Your task to perform on an android device: allow notifications from all sites in the chrome app Image 0: 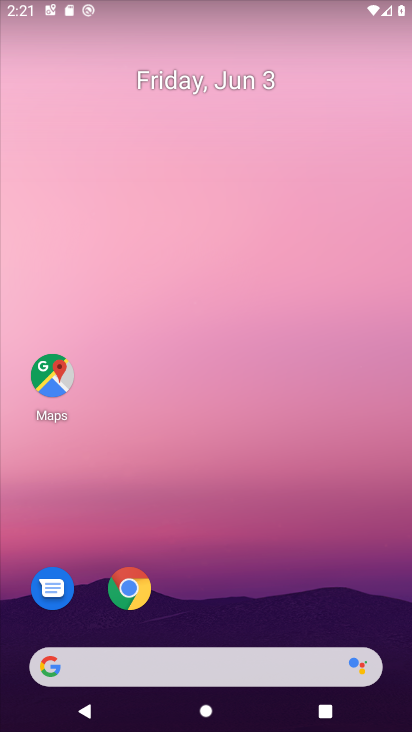
Step 0: click (118, 593)
Your task to perform on an android device: allow notifications from all sites in the chrome app Image 1: 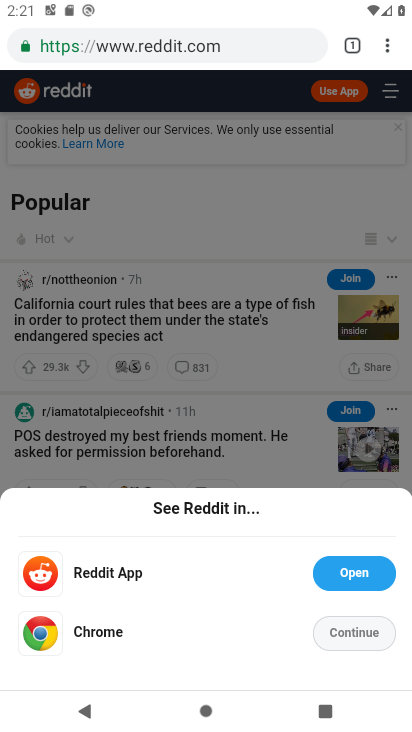
Step 1: click (383, 44)
Your task to perform on an android device: allow notifications from all sites in the chrome app Image 2: 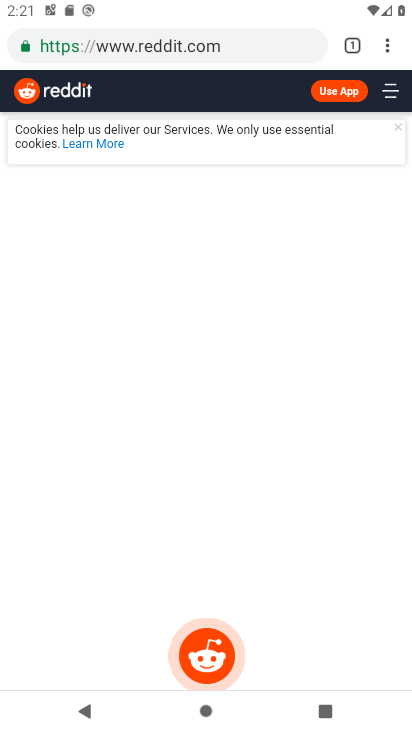
Step 2: click (386, 49)
Your task to perform on an android device: allow notifications from all sites in the chrome app Image 3: 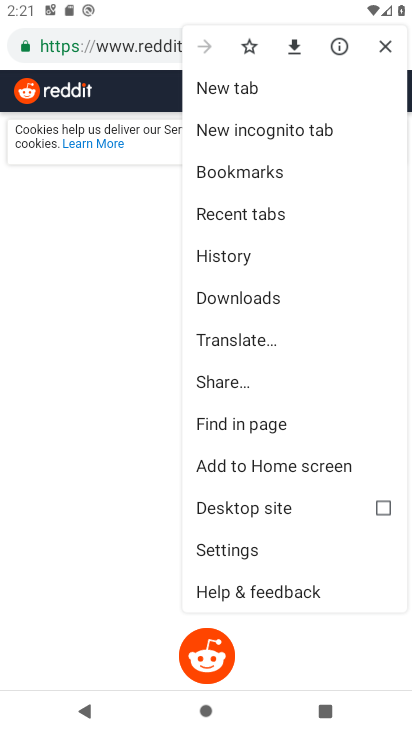
Step 3: drag from (232, 411) to (323, 1)
Your task to perform on an android device: allow notifications from all sites in the chrome app Image 4: 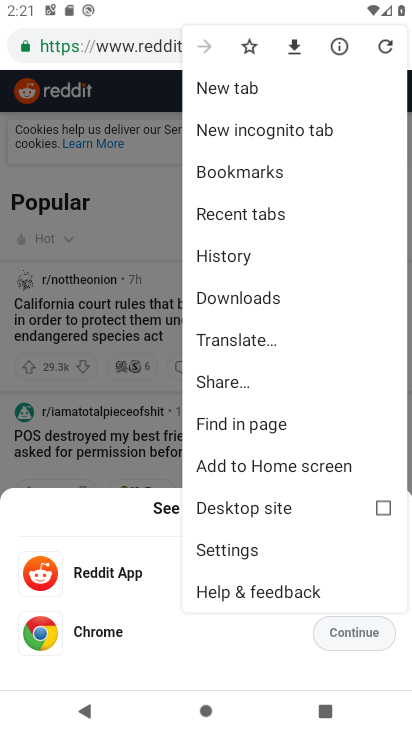
Step 4: click (269, 545)
Your task to perform on an android device: allow notifications from all sites in the chrome app Image 5: 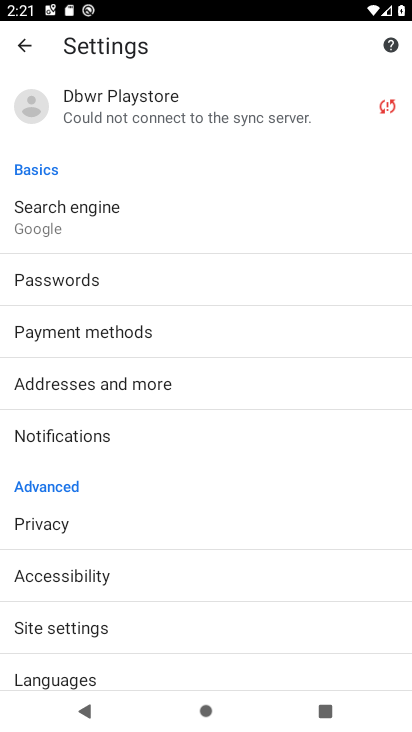
Step 5: click (111, 431)
Your task to perform on an android device: allow notifications from all sites in the chrome app Image 6: 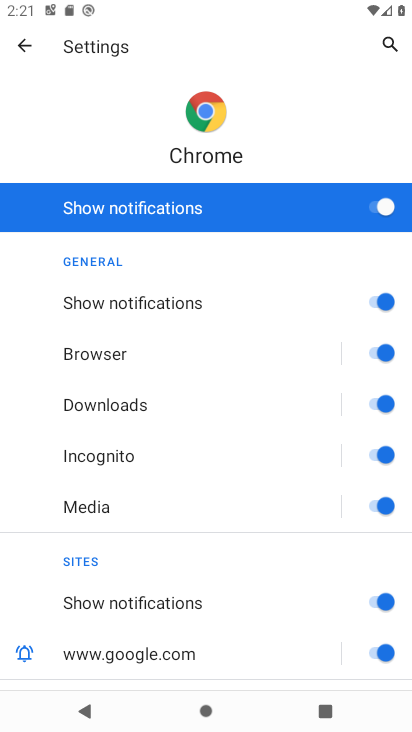
Step 6: task complete